Your task to perform on an android device: Go to battery settings Image 0: 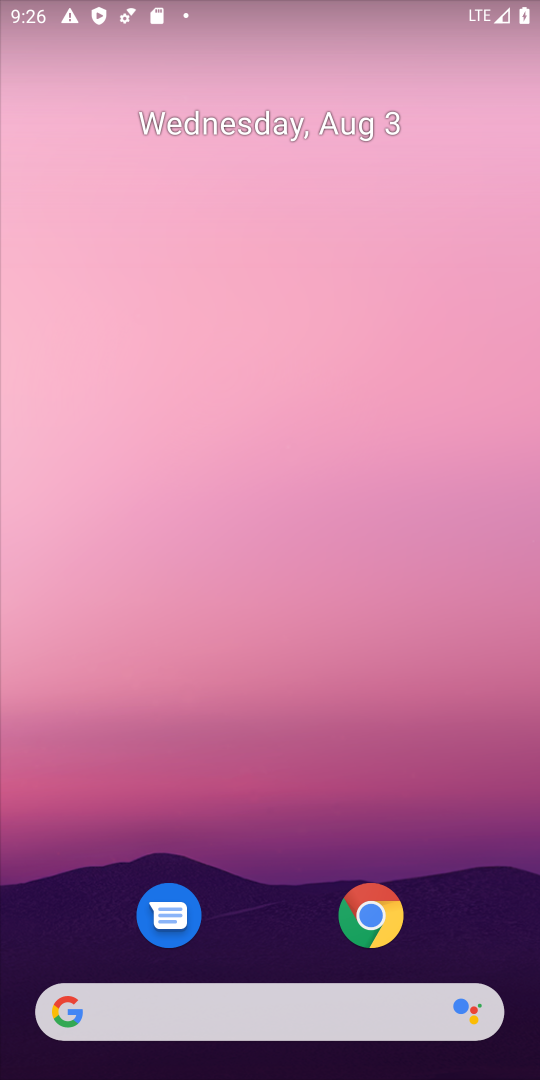
Step 0: drag from (222, 897) to (251, 317)
Your task to perform on an android device: Go to battery settings Image 1: 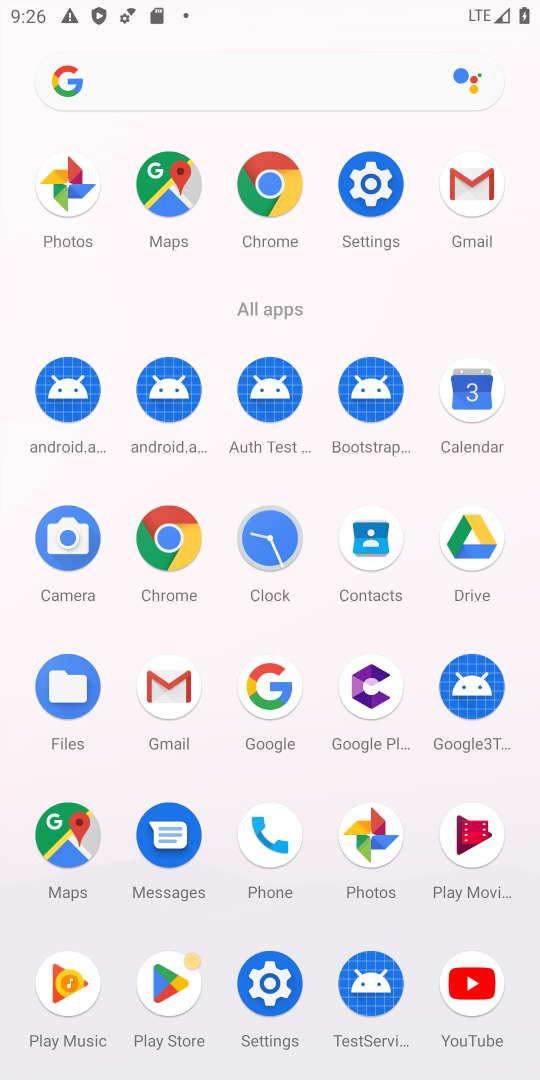
Step 1: click (352, 184)
Your task to perform on an android device: Go to battery settings Image 2: 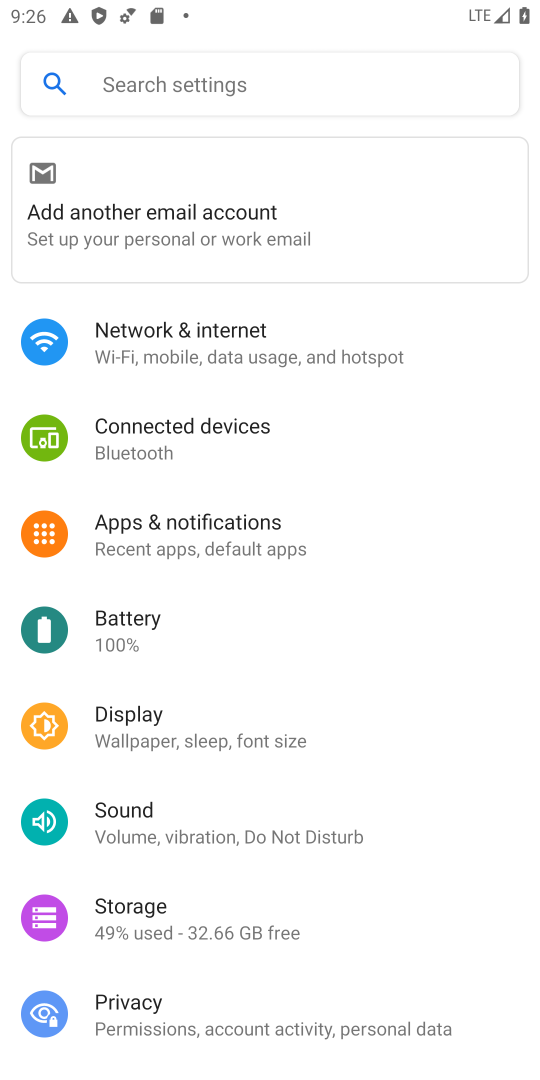
Step 2: click (141, 620)
Your task to perform on an android device: Go to battery settings Image 3: 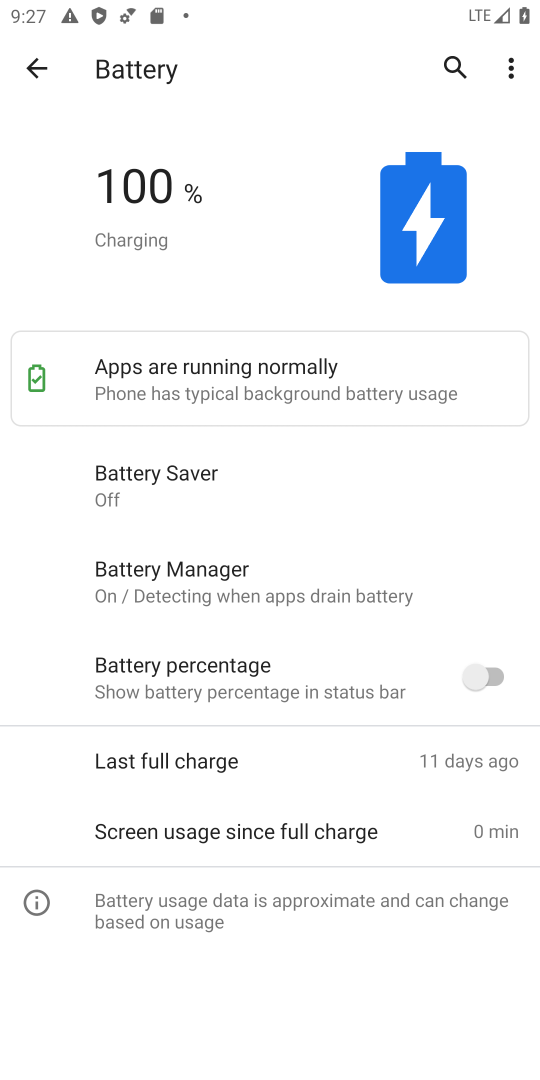
Step 3: task complete